Your task to perform on an android device: Go to Amazon Image 0: 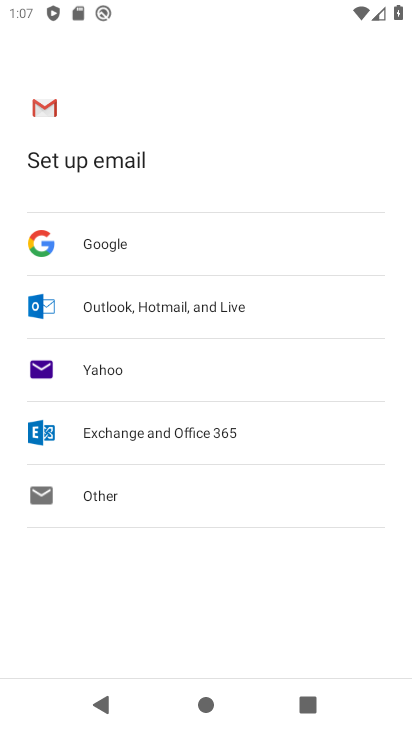
Step 0: press back button
Your task to perform on an android device: Go to Amazon Image 1: 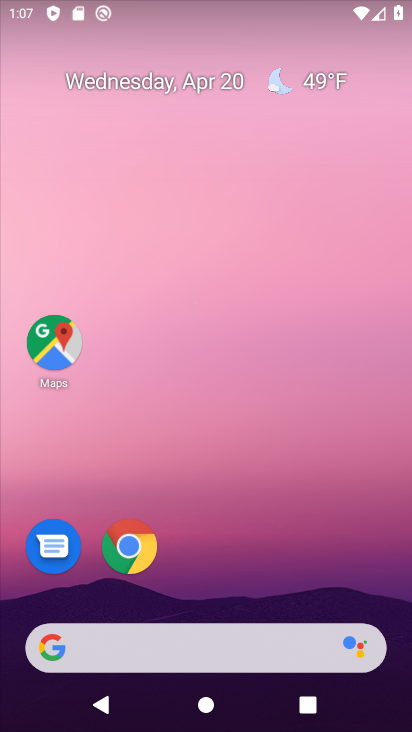
Step 1: click (129, 543)
Your task to perform on an android device: Go to Amazon Image 2: 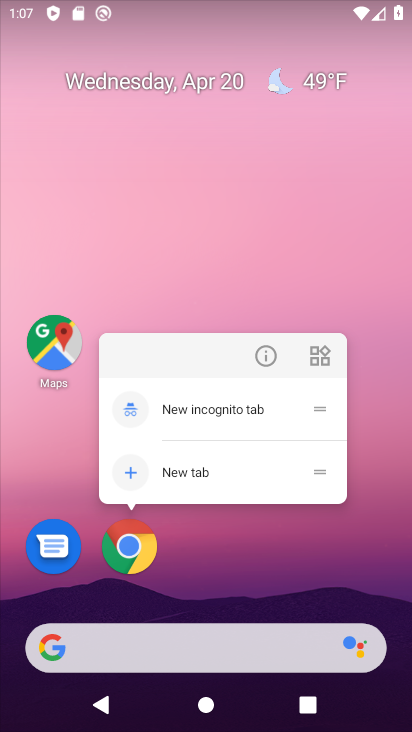
Step 2: click (119, 550)
Your task to perform on an android device: Go to Amazon Image 3: 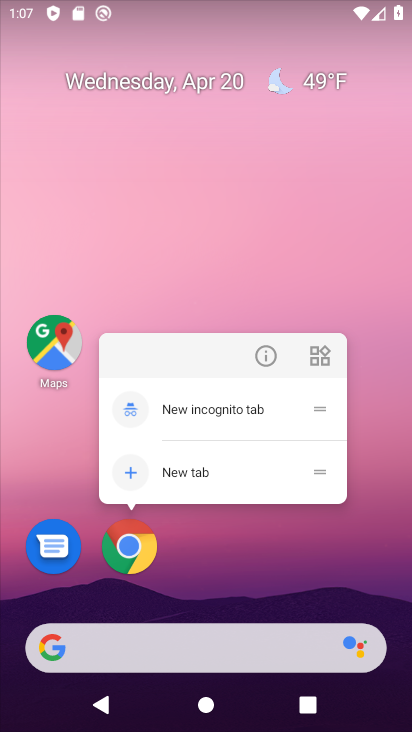
Step 3: click (134, 545)
Your task to perform on an android device: Go to Amazon Image 4: 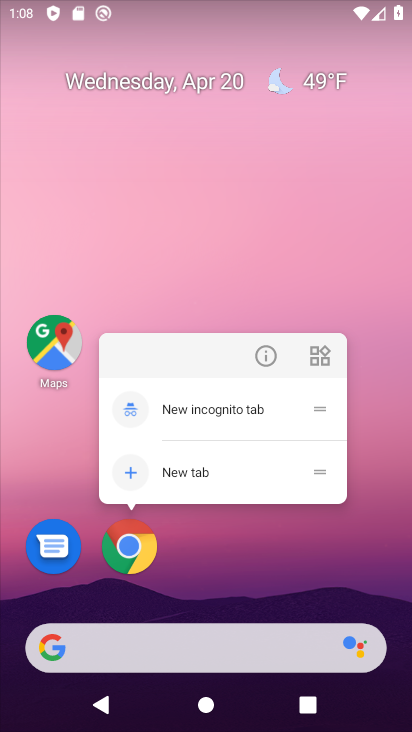
Step 4: click (136, 547)
Your task to perform on an android device: Go to Amazon Image 5: 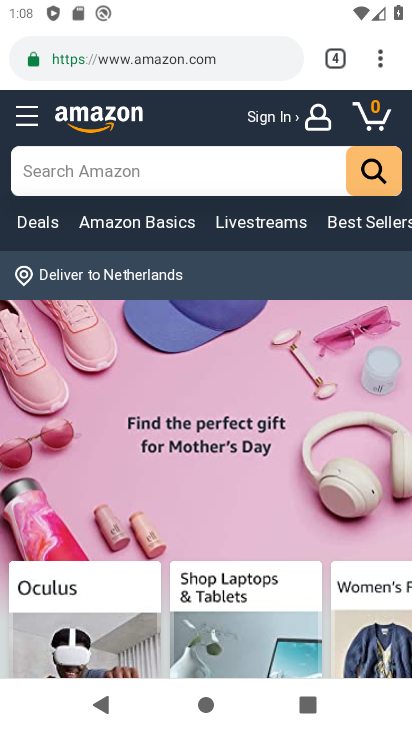
Step 5: task complete